Your task to perform on an android device: Go to CNN.com Image 0: 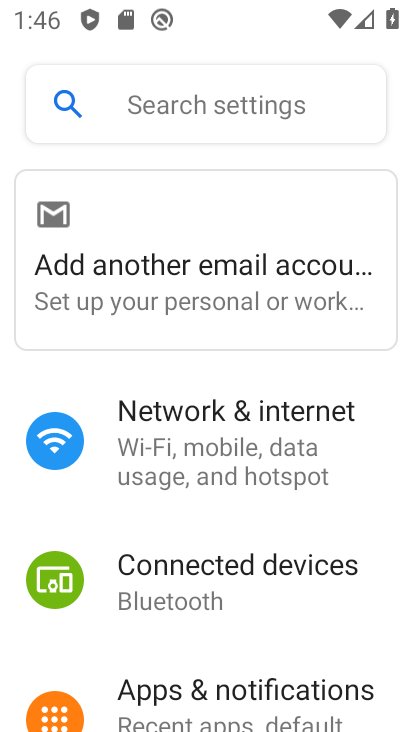
Step 0: press back button
Your task to perform on an android device: Go to CNN.com Image 1: 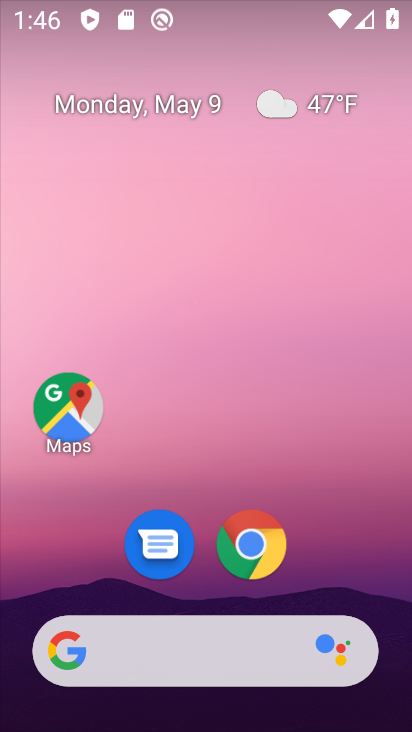
Step 1: click (266, 551)
Your task to perform on an android device: Go to CNN.com Image 2: 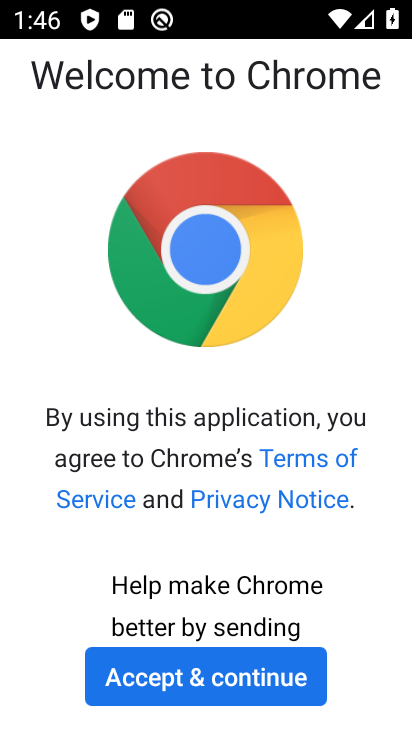
Step 2: click (228, 677)
Your task to perform on an android device: Go to CNN.com Image 3: 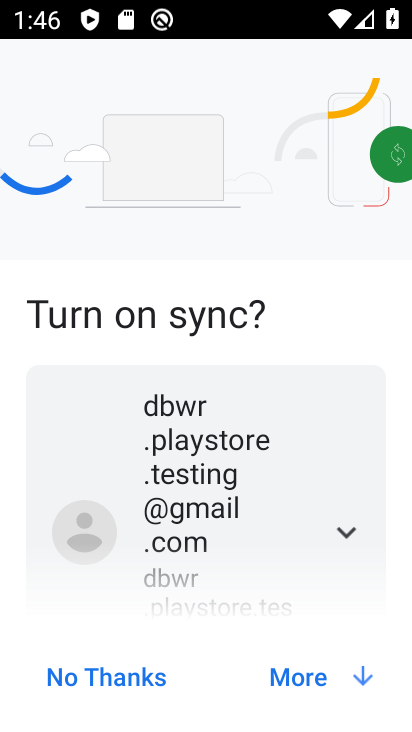
Step 3: click (341, 681)
Your task to perform on an android device: Go to CNN.com Image 4: 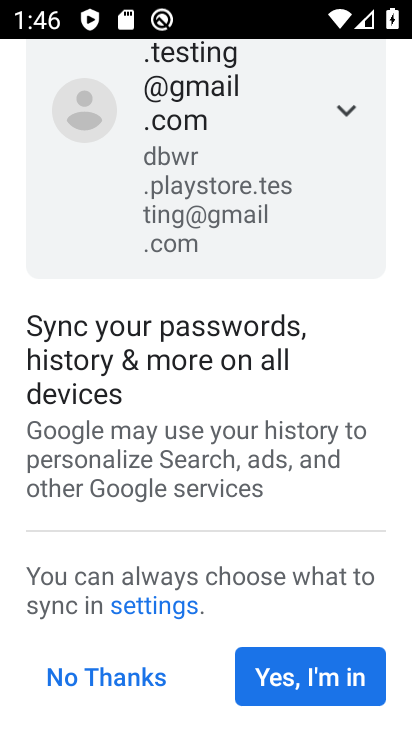
Step 4: click (341, 681)
Your task to perform on an android device: Go to CNN.com Image 5: 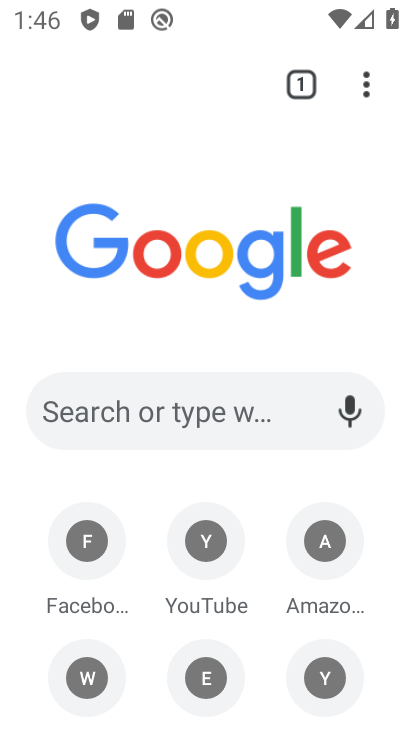
Step 5: click (275, 418)
Your task to perform on an android device: Go to CNN.com Image 6: 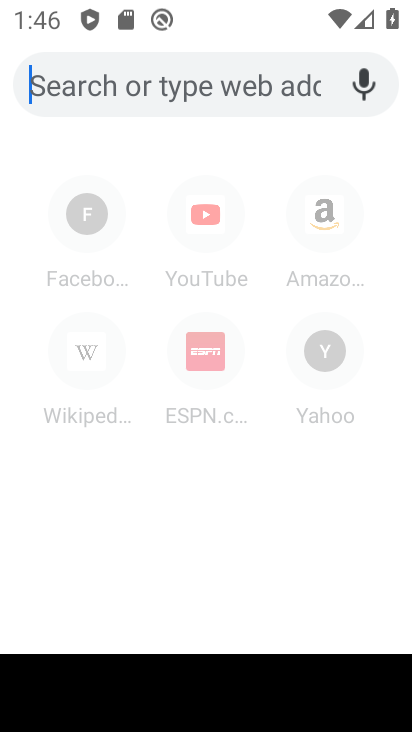
Step 6: type "CNN.com "
Your task to perform on an android device: Go to CNN.com Image 7: 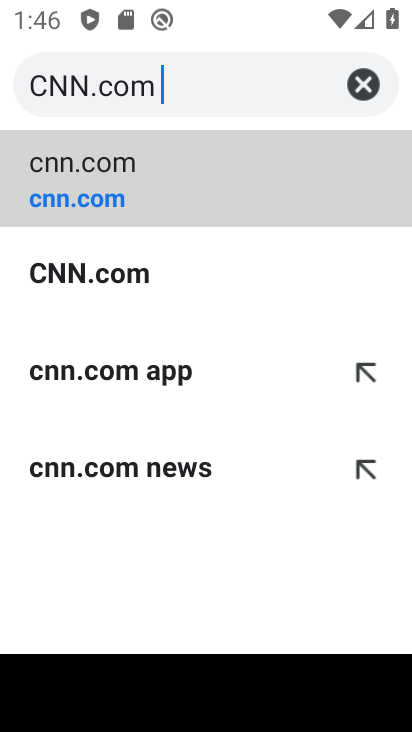
Step 7: click (158, 179)
Your task to perform on an android device: Go to CNN.com Image 8: 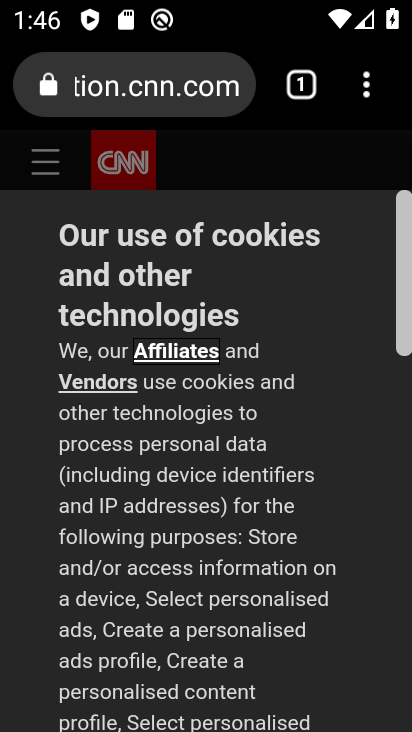
Step 8: drag from (261, 662) to (353, 351)
Your task to perform on an android device: Go to CNN.com Image 9: 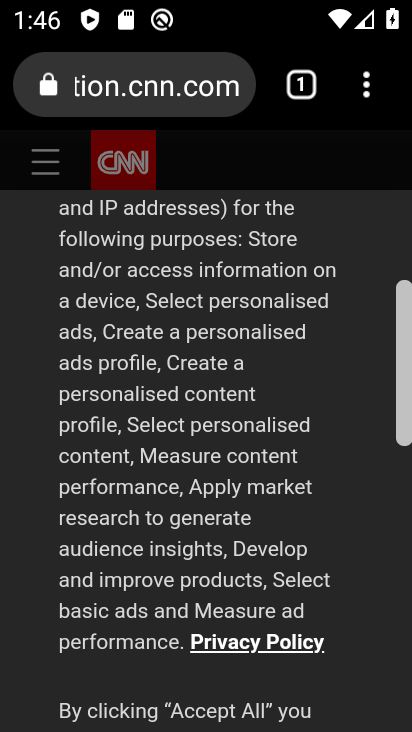
Step 9: drag from (171, 567) to (196, 426)
Your task to perform on an android device: Go to CNN.com Image 10: 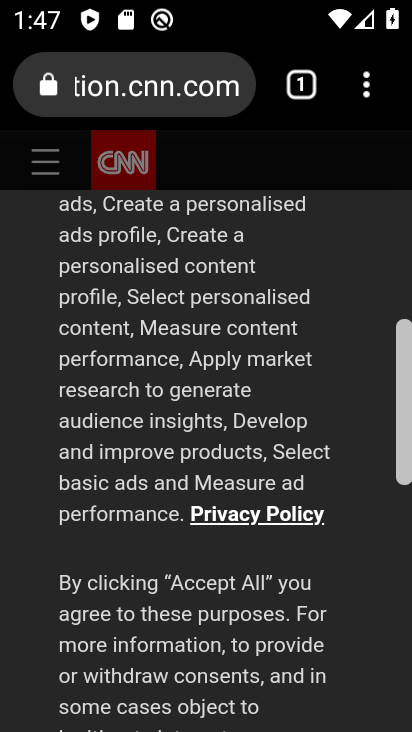
Step 10: drag from (209, 659) to (247, 356)
Your task to perform on an android device: Go to CNN.com Image 11: 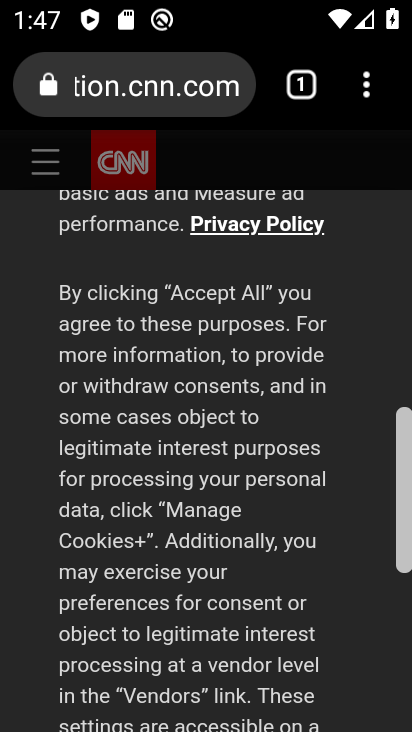
Step 11: drag from (410, 486) to (409, 650)
Your task to perform on an android device: Go to CNN.com Image 12: 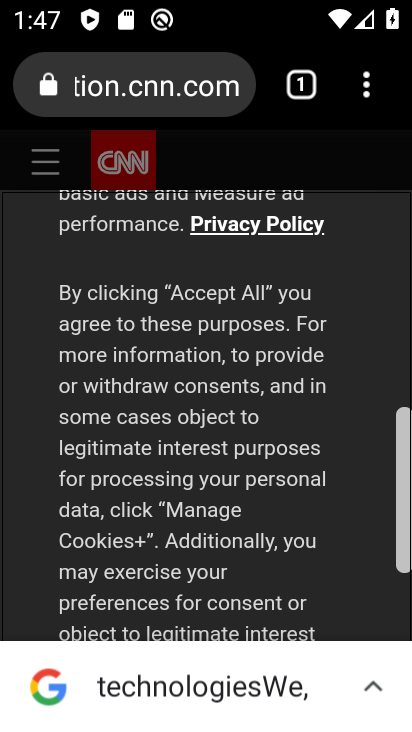
Step 12: drag from (191, 576) to (262, 311)
Your task to perform on an android device: Go to CNN.com Image 13: 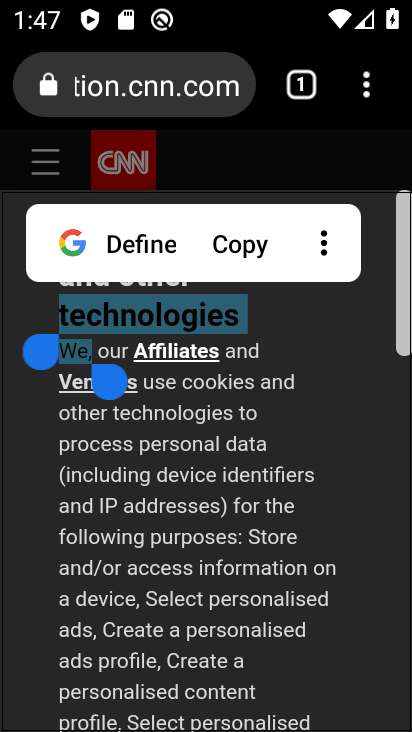
Step 13: drag from (285, 620) to (372, 243)
Your task to perform on an android device: Go to CNN.com Image 14: 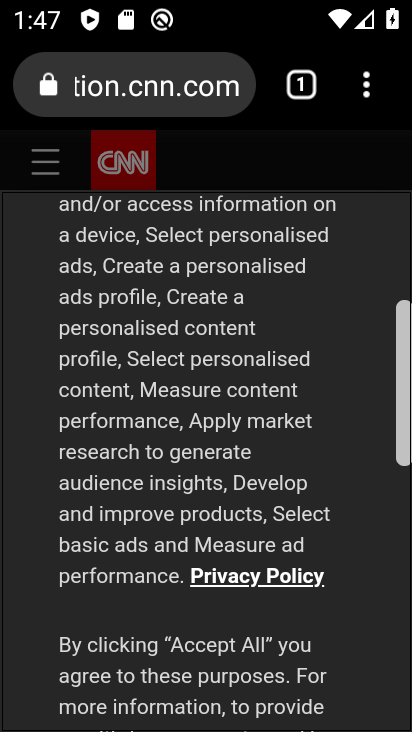
Step 14: drag from (272, 638) to (367, 305)
Your task to perform on an android device: Go to CNN.com Image 15: 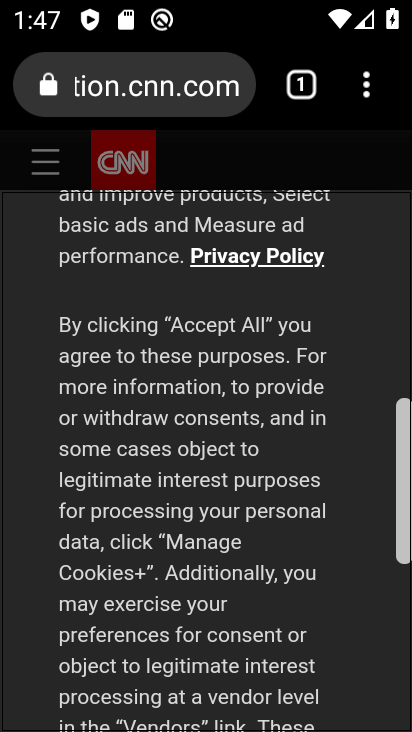
Step 15: drag from (212, 651) to (330, 325)
Your task to perform on an android device: Go to CNN.com Image 16: 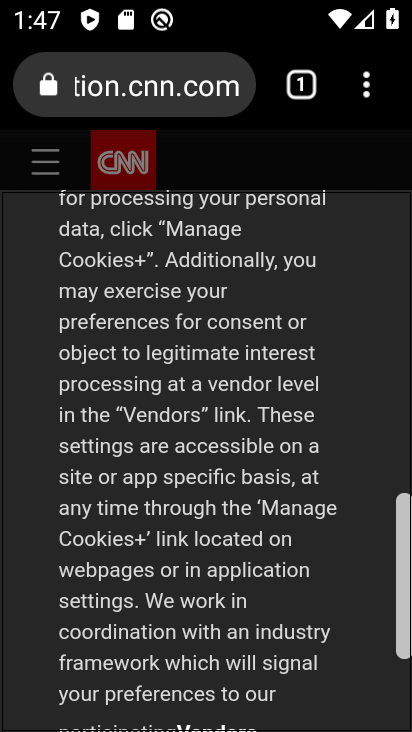
Step 16: drag from (330, 325) to (389, 120)
Your task to perform on an android device: Go to CNN.com Image 17: 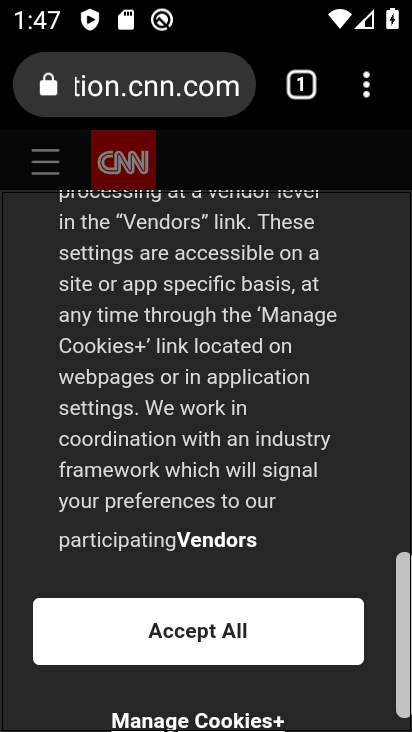
Step 17: click (288, 634)
Your task to perform on an android device: Go to CNN.com Image 18: 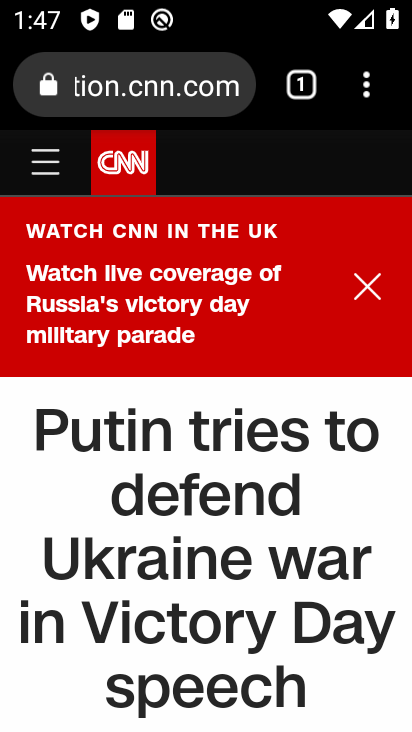
Step 18: task complete